Your task to perform on an android device: Show the shopping cart on target.com. Search for "razer naga" on target.com, select the first entry, and add it to the cart. Image 0: 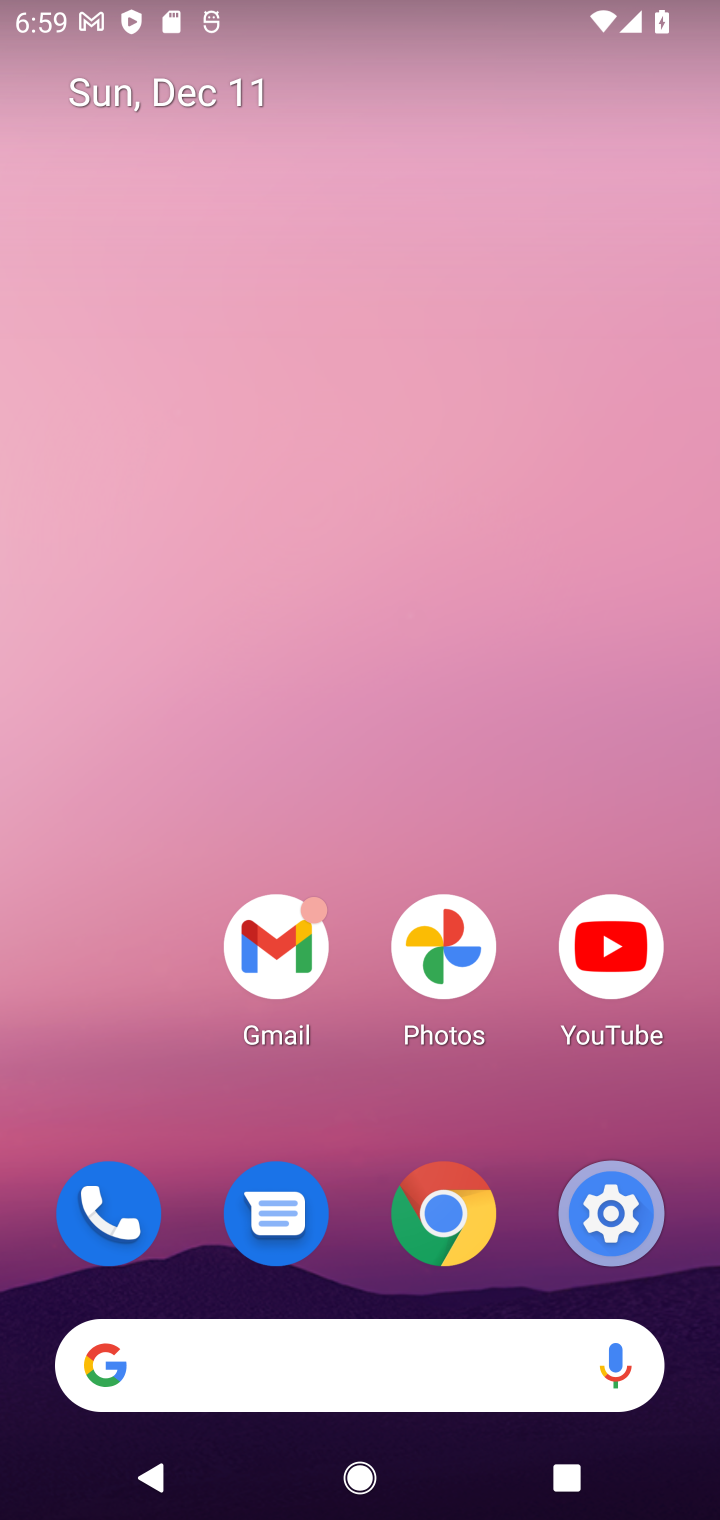
Step 0: click (390, 1352)
Your task to perform on an android device: Show the shopping cart on target.com. Search for "razer naga" on target.com, select the first entry, and add it to the cart. Image 1: 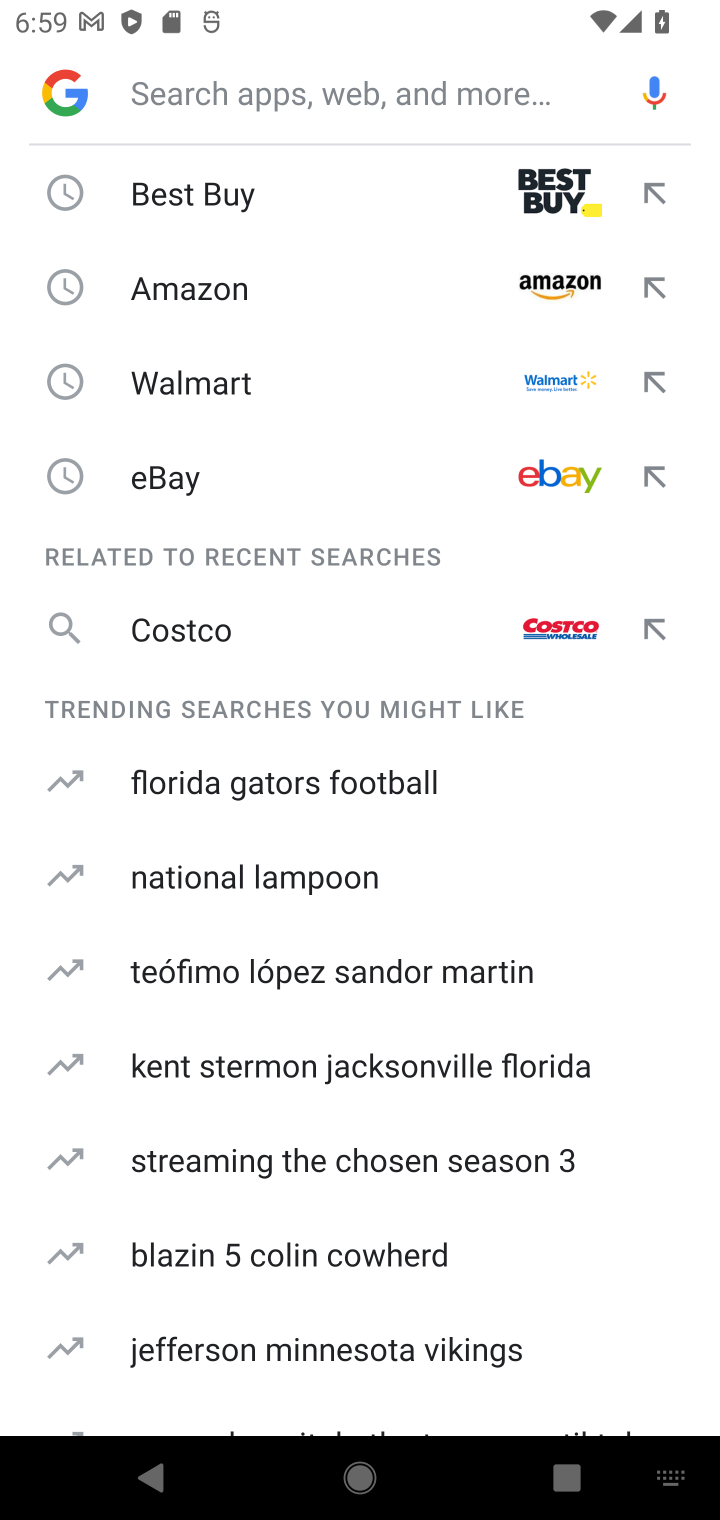
Step 1: type "target"
Your task to perform on an android device: Show the shopping cart on target.com. Search for "razer naga" on target.com, select the first entry, and add it to the cart. Image 2: 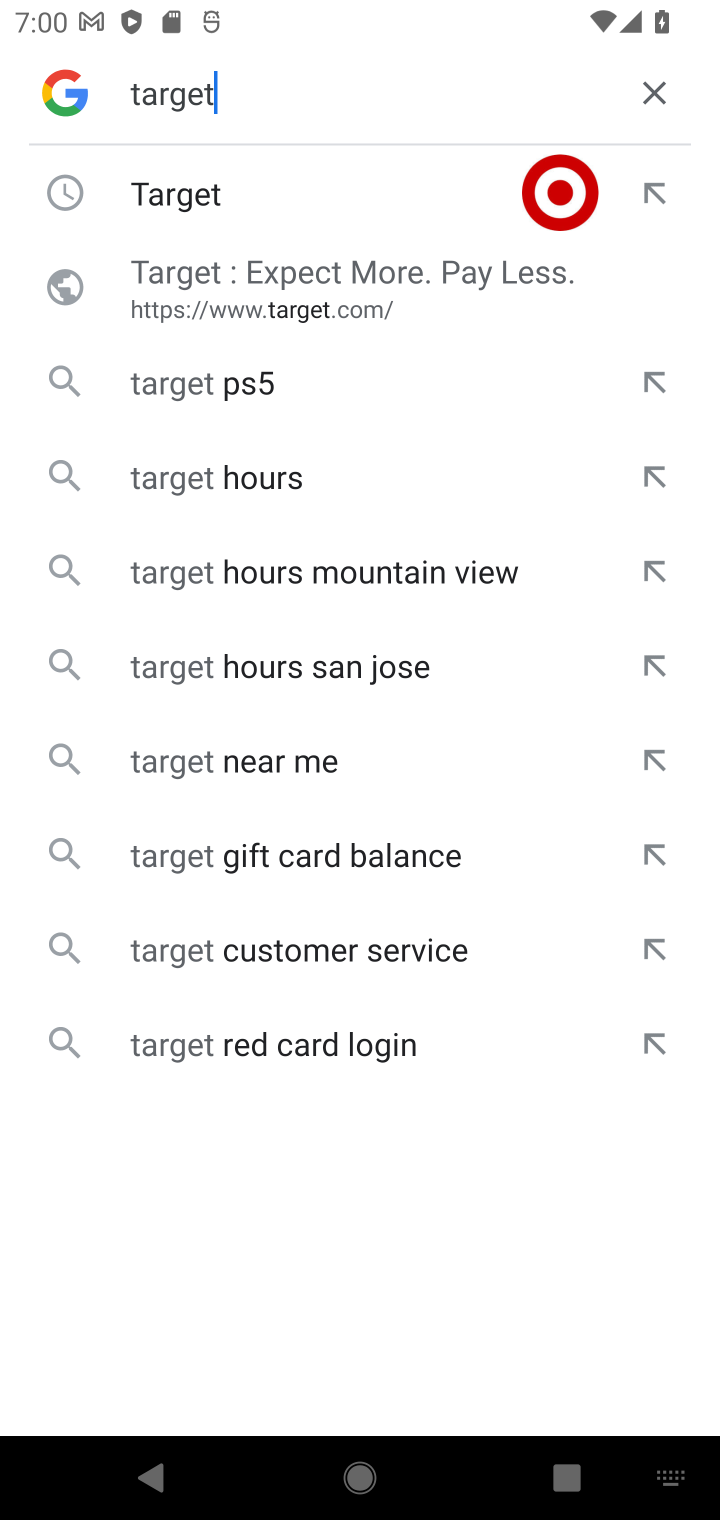
Step 2: click (167, 161)
Your task to perform on an android device: Show the shopping cart on target.com. Search for "razer naga" on target.com, select the first entry, and add it to the cart. Image 3: 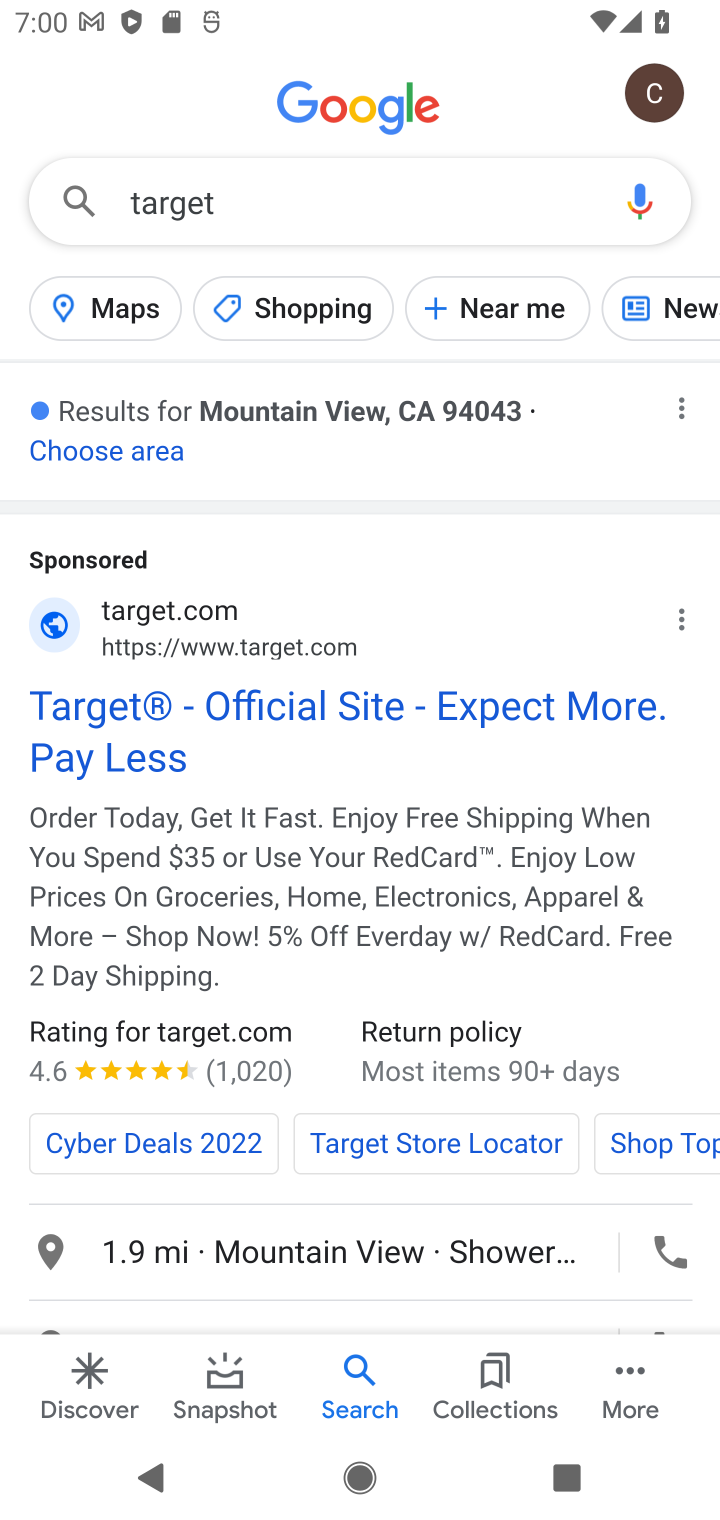
Step 3: click (44, 717)
Your task to perform on an android device: Show the shopping cart on target.com. Search for "razer naga" on target.com, select the first entry, and add it to the cart. Image 4: 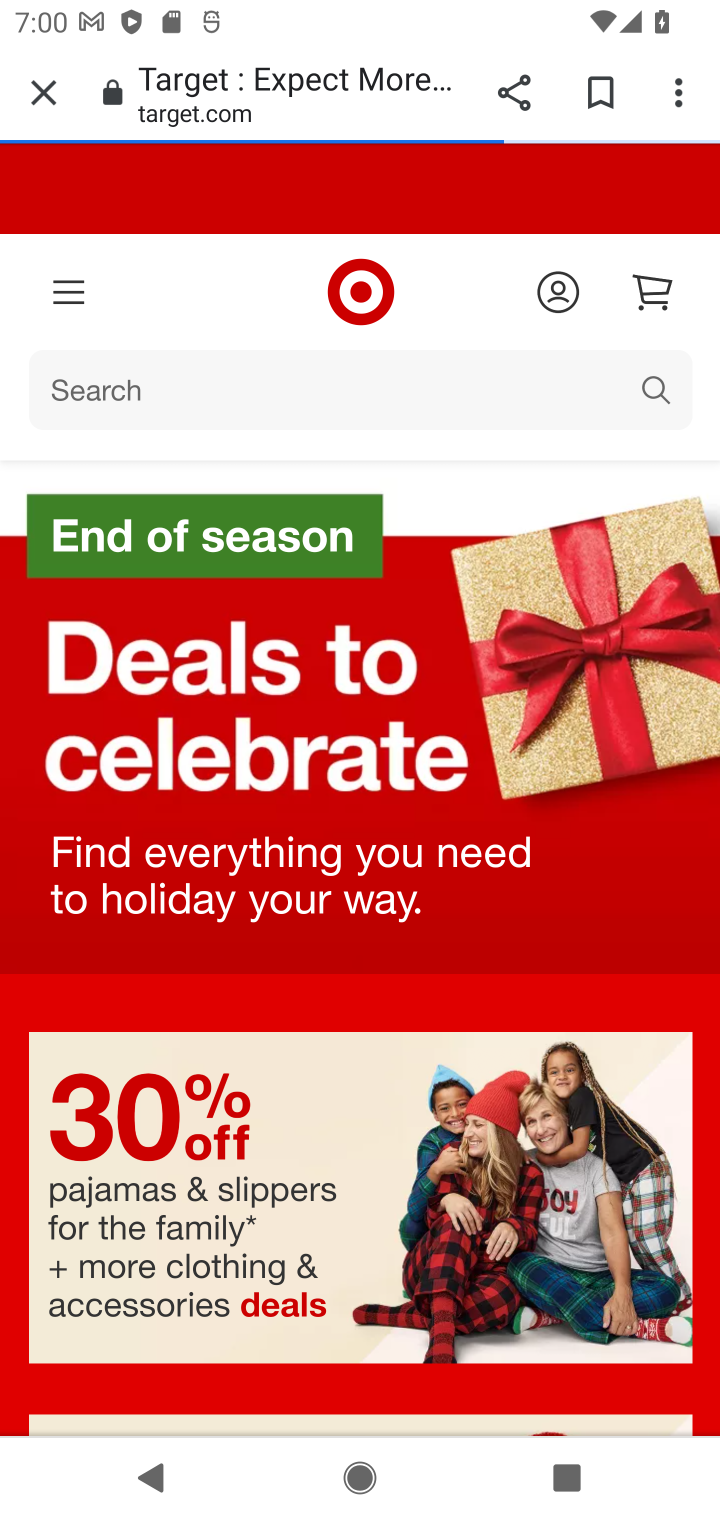
Step 4: click (285, 390)
Your task to perform on an android device: Show the shopping cart on target.com. Search for "razer naga" on target.com, select the first entry, and add it to the cart. Image 5: 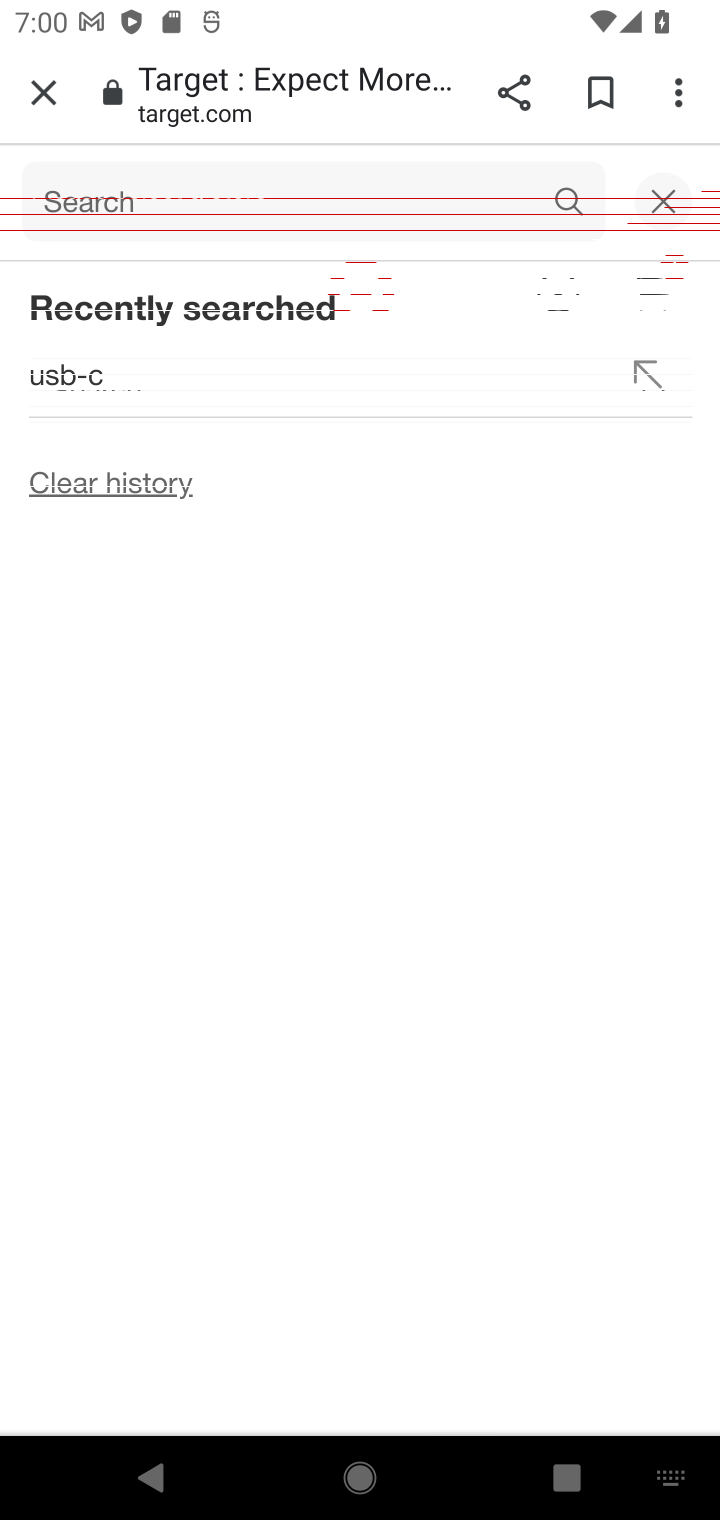
Step 5: type "razer naga"
Your task to perform on an android device: Show the shopping cart on target.com. Search for "razer naga" on target.com, select the first entry, and add it to the cart. Image 6: 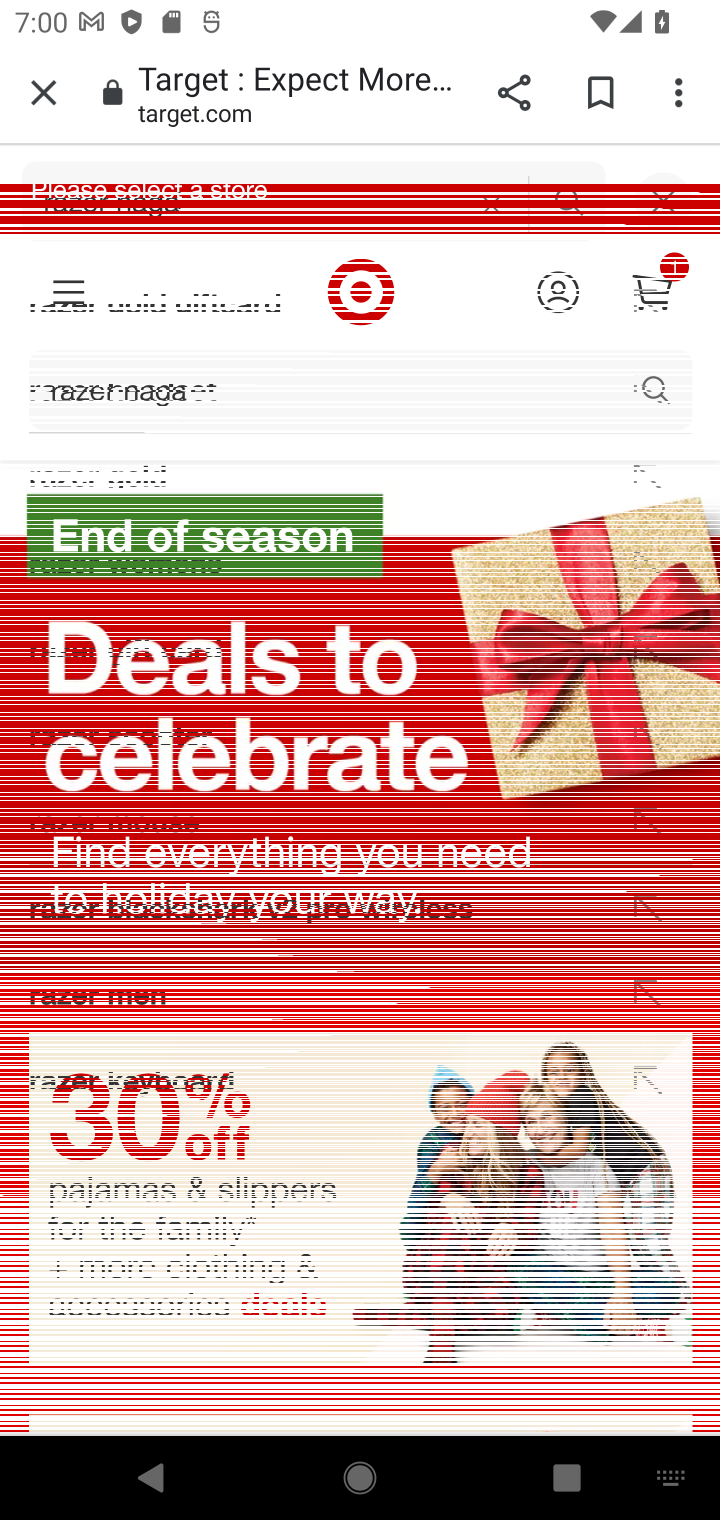
Step 6: click (567, 219)
Your task to perform on an android device: Show the shopping cart on target.com. Search for "razer naga" on target.com, select the first entry, and add it to the cart. Image 7: 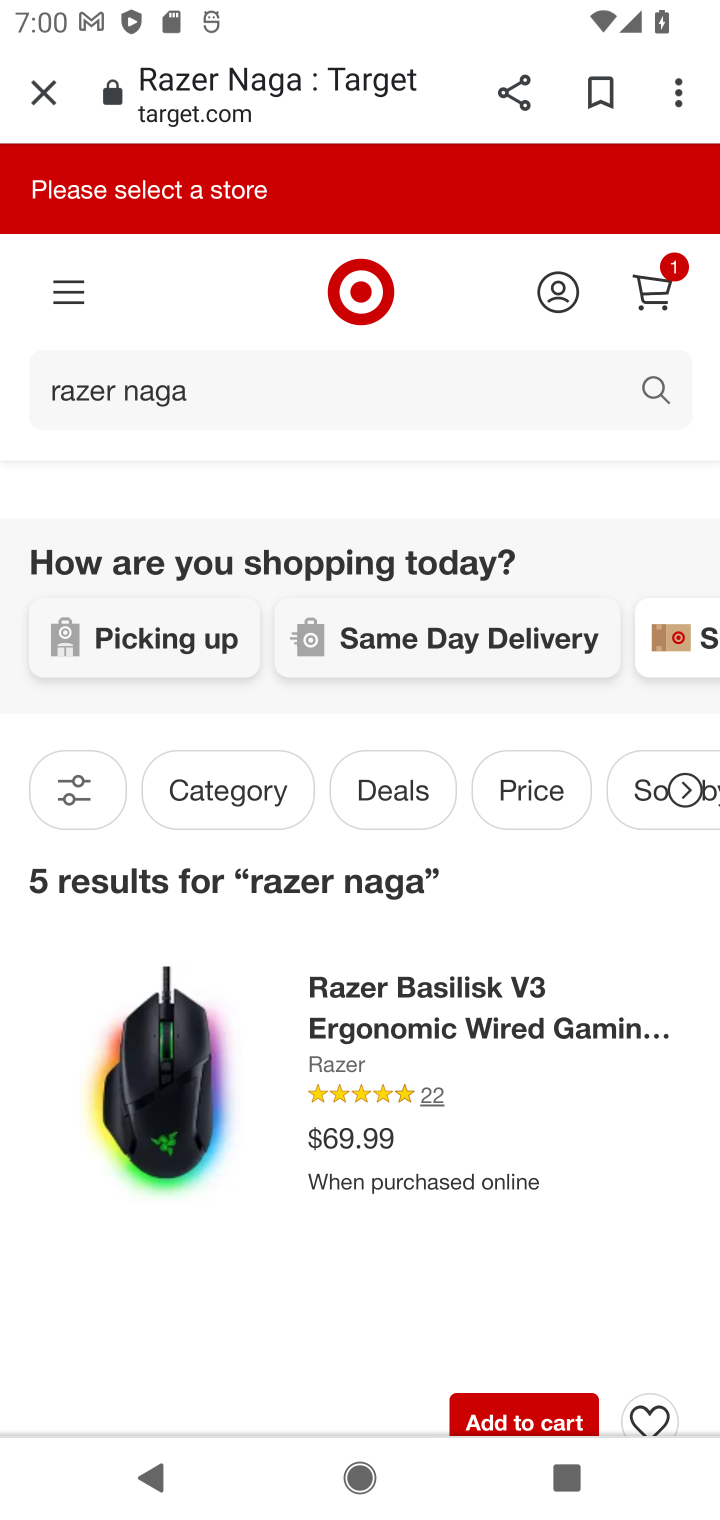
Step 7: click (476, 1418)
Your task to perform on an android device: Show the shopping cart on target.com. Search for "razer naga" on target.com, select the first entry, and add it to the cart. Image 8: 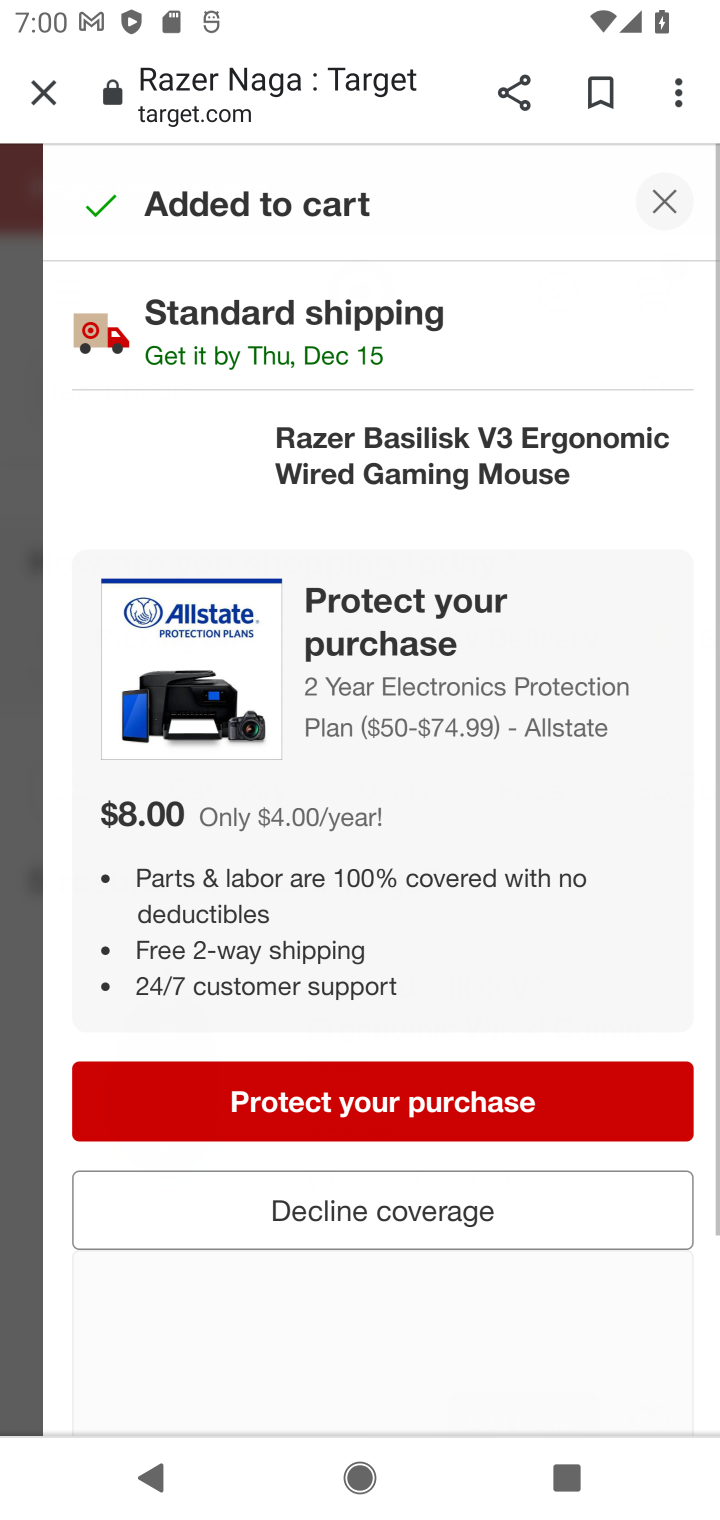
Step 8: task complete